Your task to perform on an android device: View the shopping cart on newegg. Search for usb-c to usb-b on newegg, select the first entry, add it to the cart, then select checkout. Image 0: 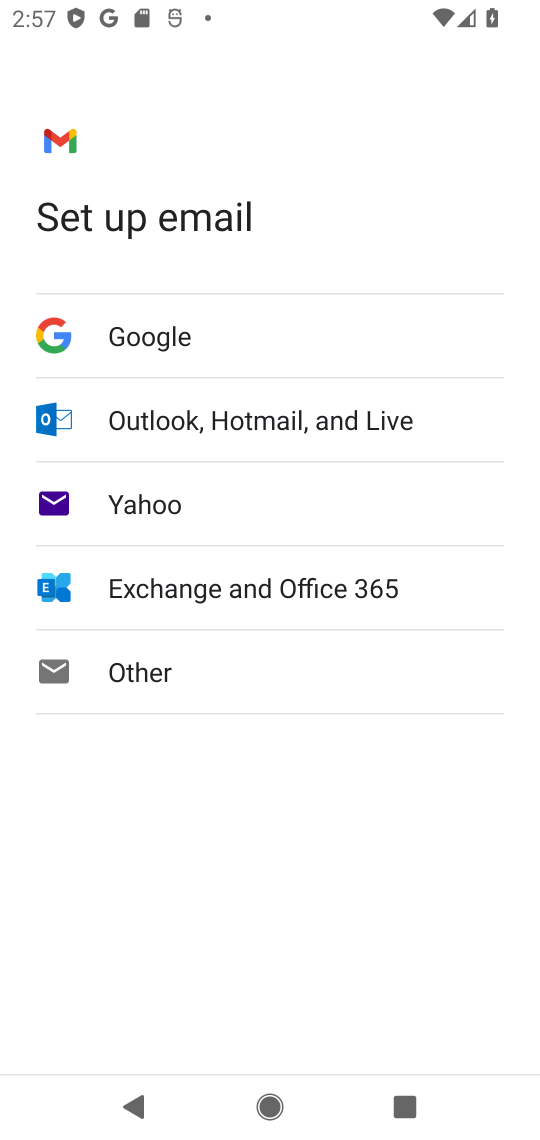
Step 0: press home button
Your task to perform on an android device: View the shopping cart on newegg. Search for usb-c to usb-b on newegg, select the first entry, add it to the cart, then select checkout. Image 1: 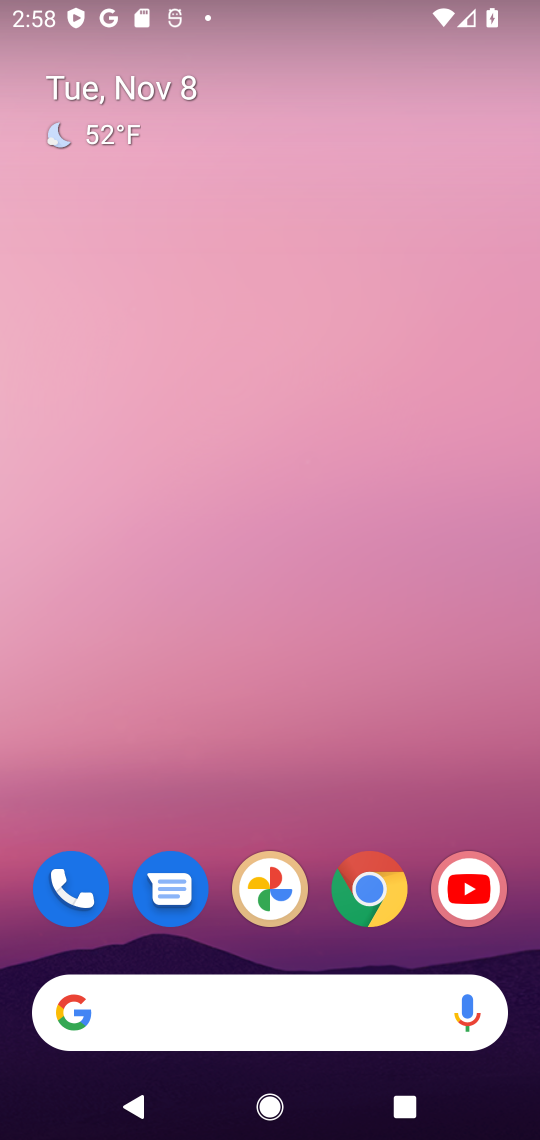
Step 1: click (360, 878)
Your task to perform on an android device: View the shopping cart on newegg. Search for usb-c to usb-b on newegg, select the first entry, add it to the cart, then select checkout. Image 2: 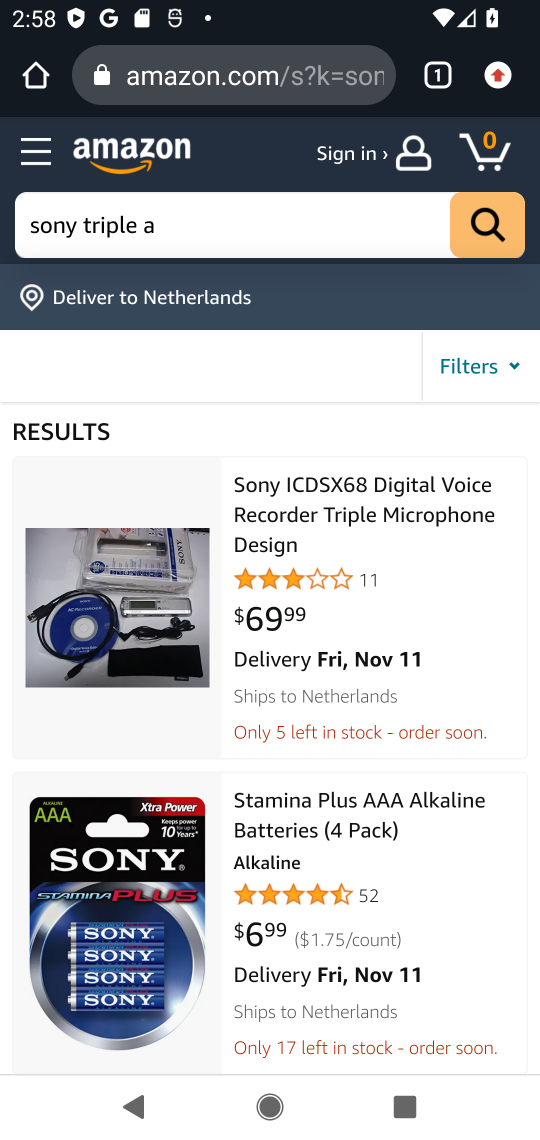
Step 2: click (257, 76)
Your task to perform on an android device: View the shopping cart on newegg. Search for usb-c to usb-b on newegg, select the first entry, add it to the cart, then select checkout. Image 3: 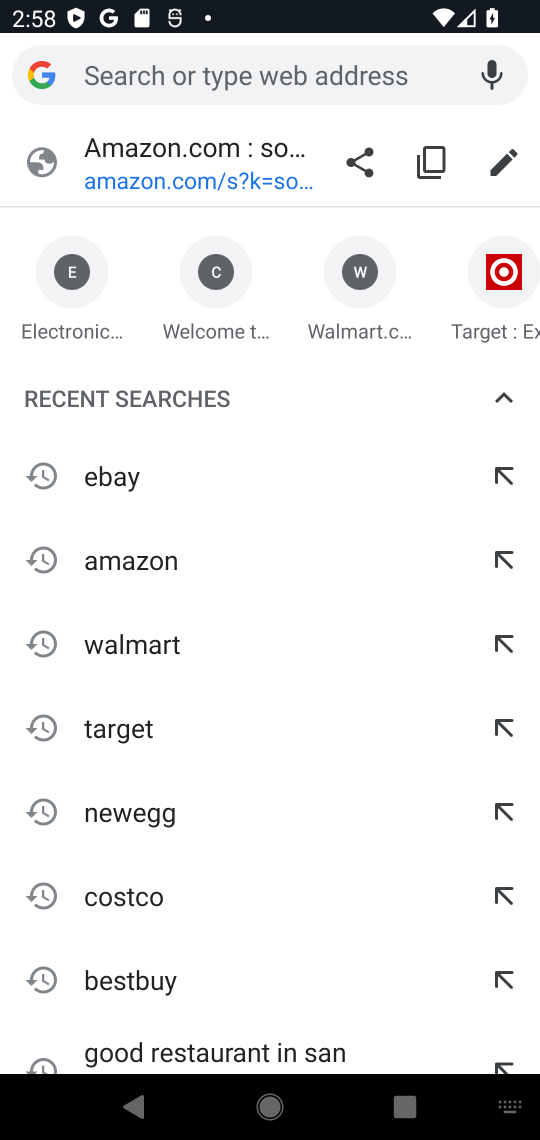
Step 3: type "newegg.com"
Your task to perform on an android device: View the shopping cart on newegg. Search for usb-c to usb-b on newegg, select the first entry, add it to the cart, then select checkout. Image 4: 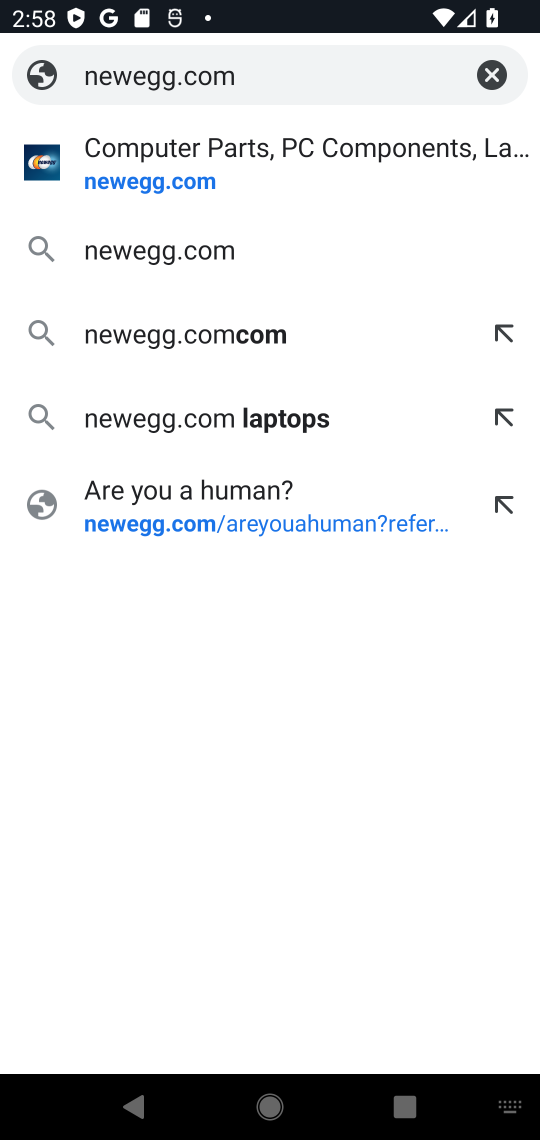
Step 4: click (157, 179)
Your task to perform on an android device: View the shopping cart on newegg. Search for usb-c to usb-b on newegg, select the first entry, add it to the cart, then select checkout. Image 5: 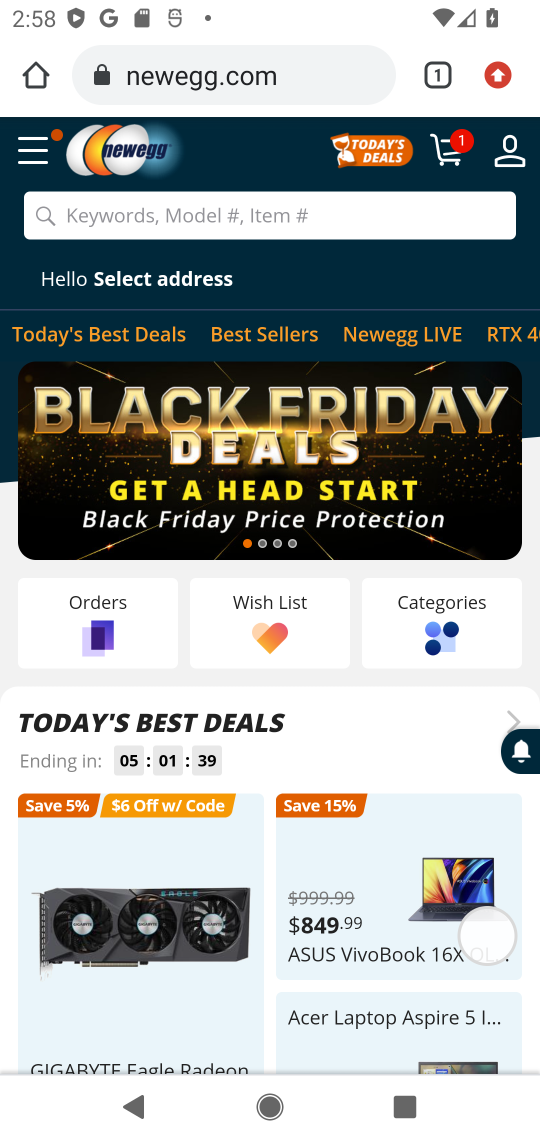
Step 5: click (458, 157)
Your task to perform on an android device: View the shopping cart on newegg. Search for usb-c to usb-b on newegg, select the first entry, add it to the cart, then select checkout. Image 6: 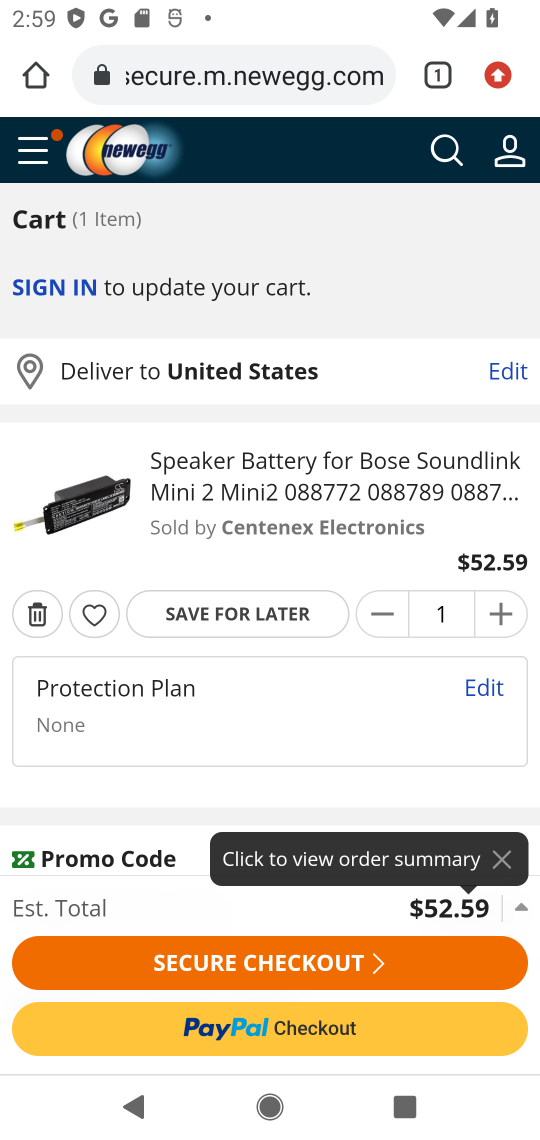
Step 6: click (451, 161)
Your task to perform on an android device: View the shopping cart on newegg. Search for usb-c to usb-b on newegg, select the first entry, add it to the cart, then select checkout. Image 7: 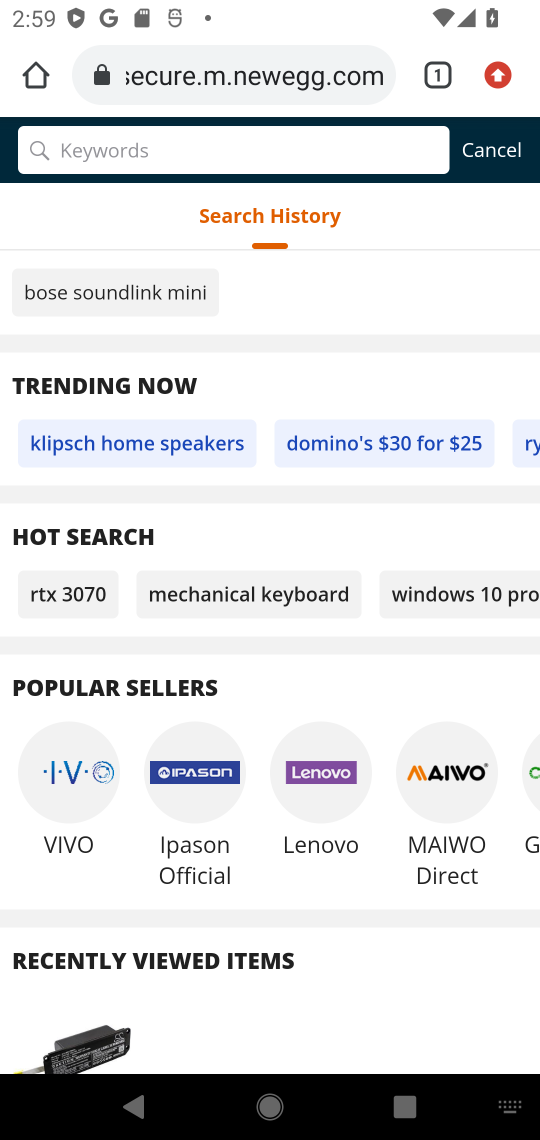
Step 7: type " usb-c to usb-b"
Your task to perform on an android device: View the shopping cart on newegg. Search for usb-c to usb-b on newegg, select the first entry, add it to the cart, then select checkout. Image 8: 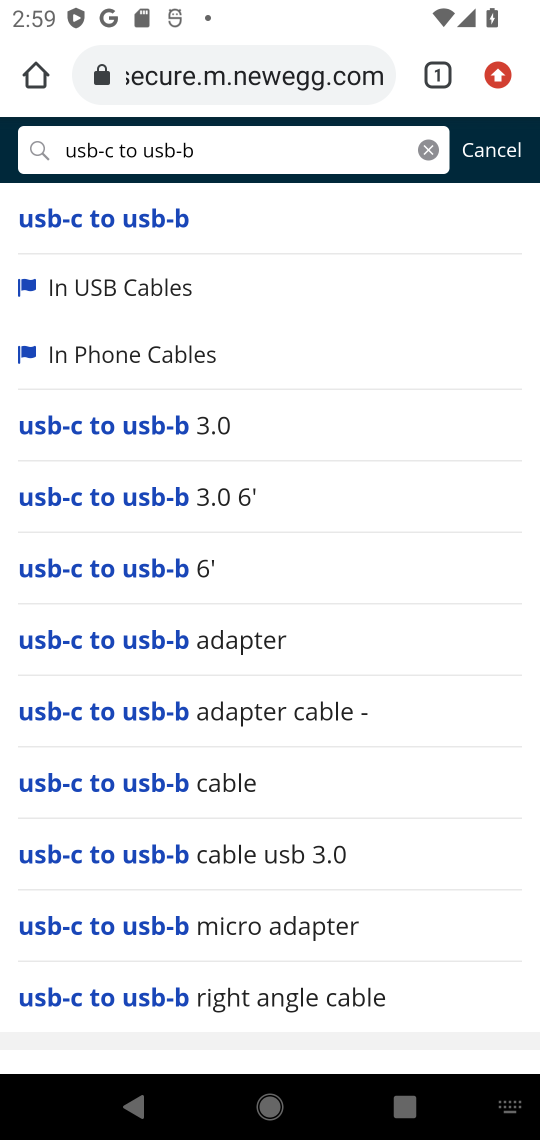
Step 8: click (91, 221)
Your task to perform on an android device: View the shopping cart on newegg. Search for usb-c to usb-b on newegg, select the first entry, add it to the cart, then select checkout. Image 9: 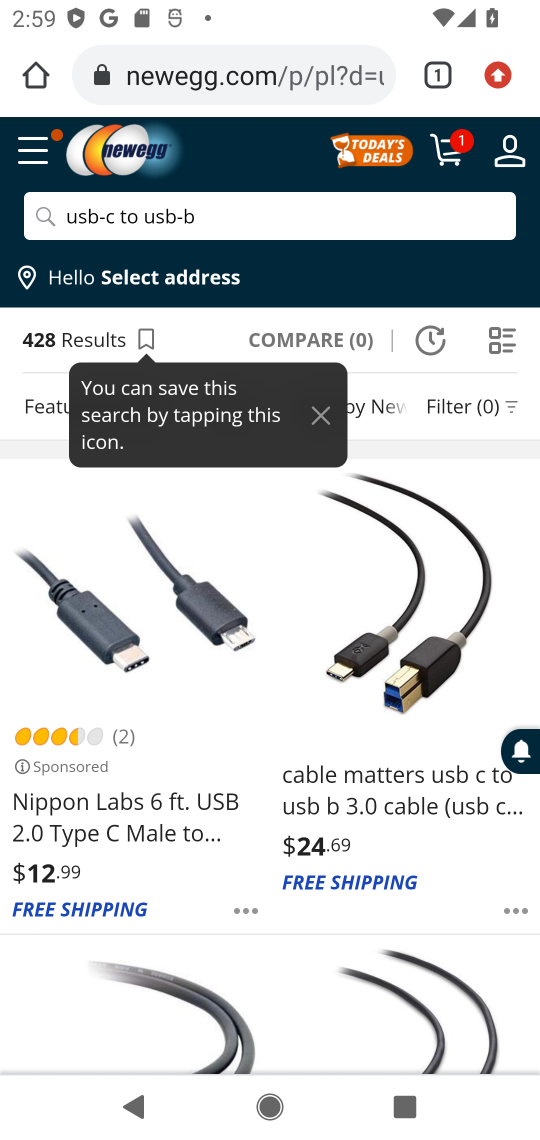
Step 9: click (107, 681)
Your task to perform on an android device: View the shopping cart on newegg. Search for usb-c to usb-b on newegg, select the first entry, add it to the cart, then select checkout. Image 10: 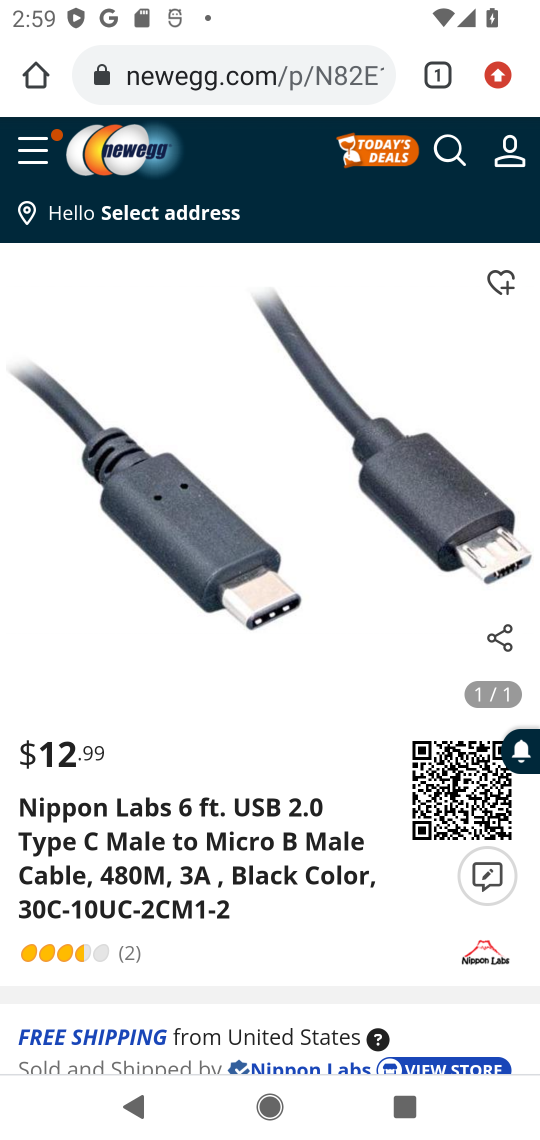
Step 10: task complete